Your task to perform on an android device: What is the news today? Image 0: 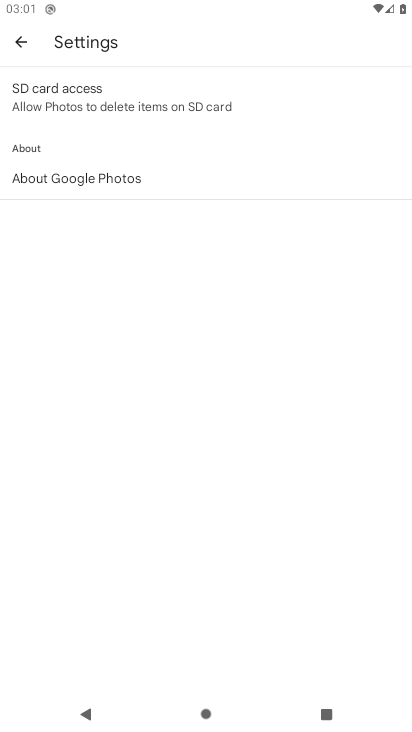
Step 0: press home button
Your task to perform on an android device: What is the news today? Image 1: 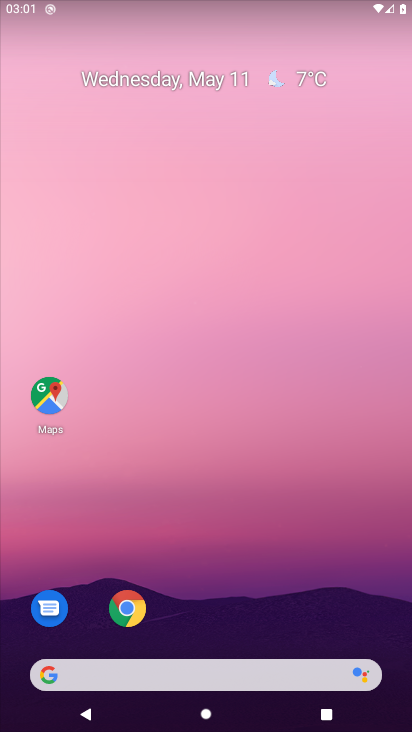
Step 1: task complete